Your task to perform on an android device: Search for seafood restaurants on Google Maps Image 0: 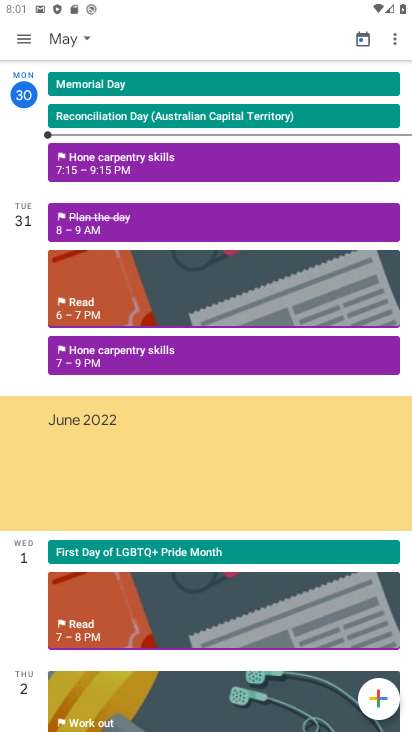
Step 0: press home button
Your task to perform on an android device: Search for seafood restaurants on Google Maps Image 1: 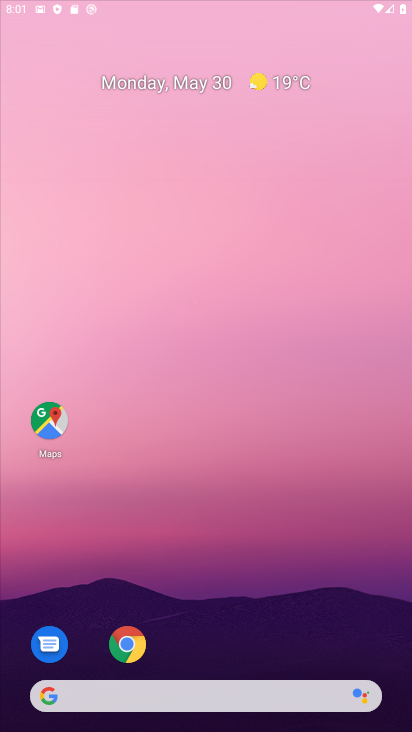
Step 1: drag from (299, 377) to (394, 163)
Your task to perform on an android device: Search for seafood restaurants on Google Maps Image 2: 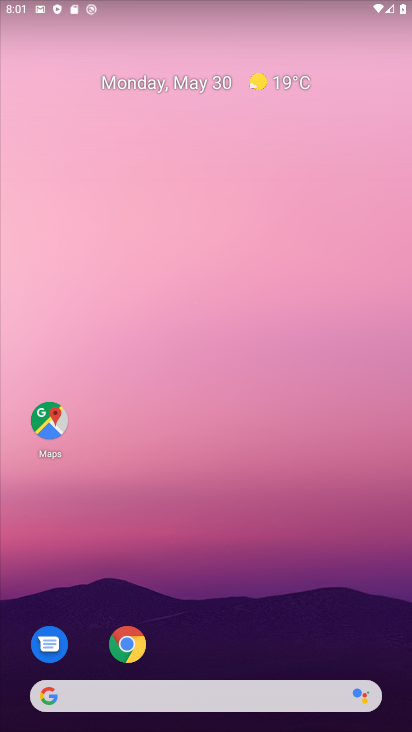
Step 2: drag from (170, 635) to (273, 46)
Your task to perform on an android device: Search for seafood restaurants on Google Maps Image 3: 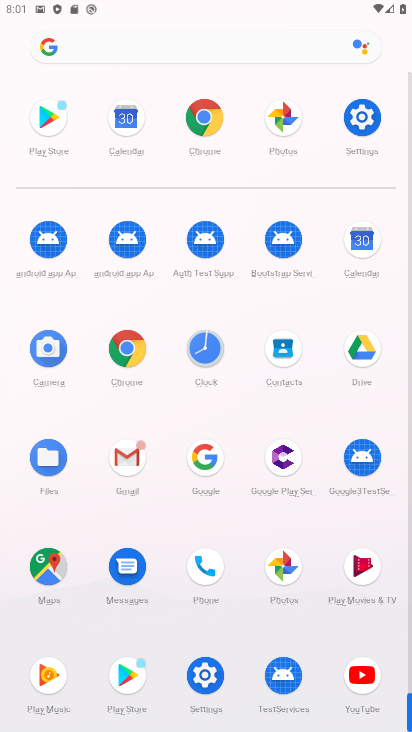
Step 3: click (48, 565)
Your task to perform on an android device: Search for seafood restaurants on Google Maps Image 4: 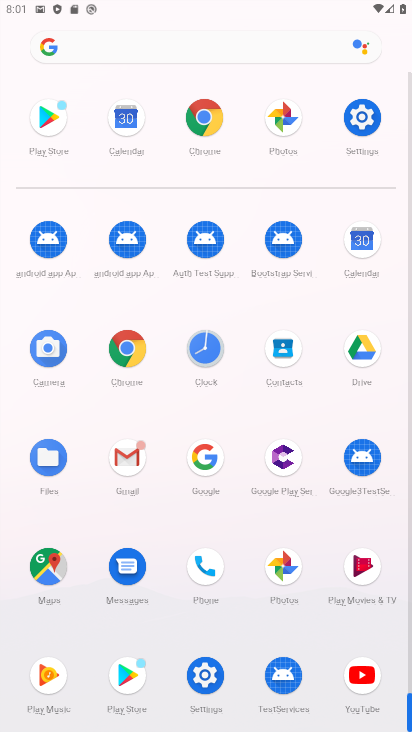
Step 4: click (48, 565)
Your task to perform on an android device: Search for seafood restaurants on Google Maps Image 5: 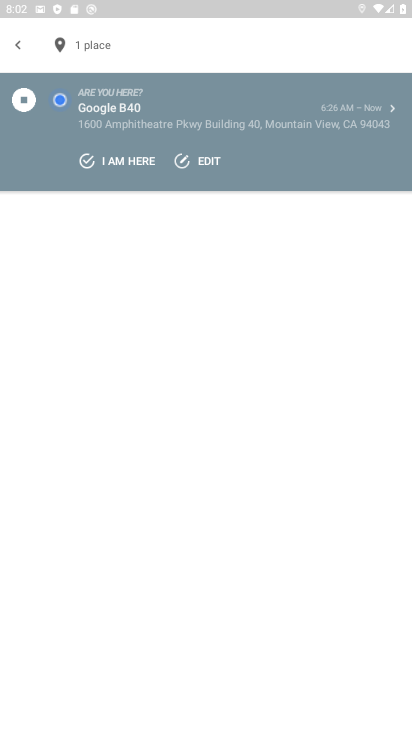
Step 5: click (11, 45)
Your task to perform on an android device: Search for seafood restaurants on Google Maps Image 6: 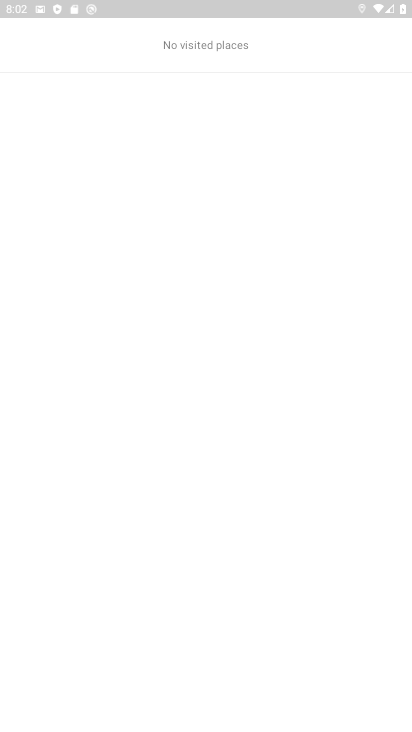
Step 6: click (47, 49)
Your task to perform on an android device: Search for seafood restaurants on Google Maps Image 7: 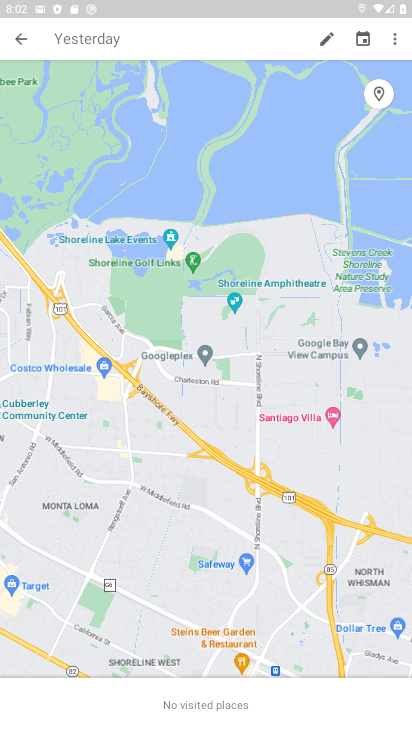
Step 7: press back button
Your task to perform on an android device: Search for seafood restaurants on Google Maps Image 8: 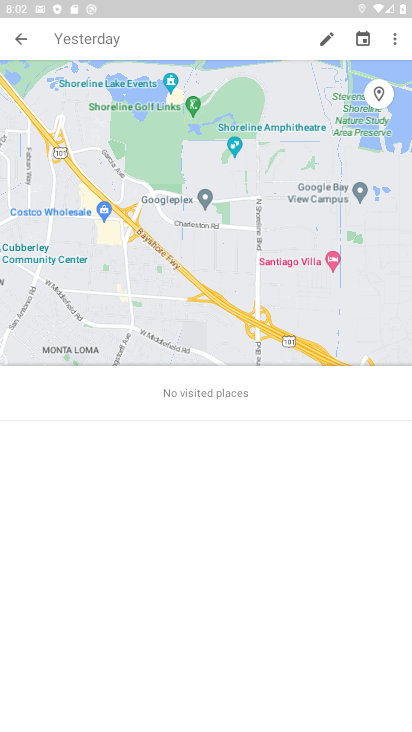
Step 8: click (24, 42)
Your task to perform on an android device: Search for seafood restaurants on Google Maps Image 9: 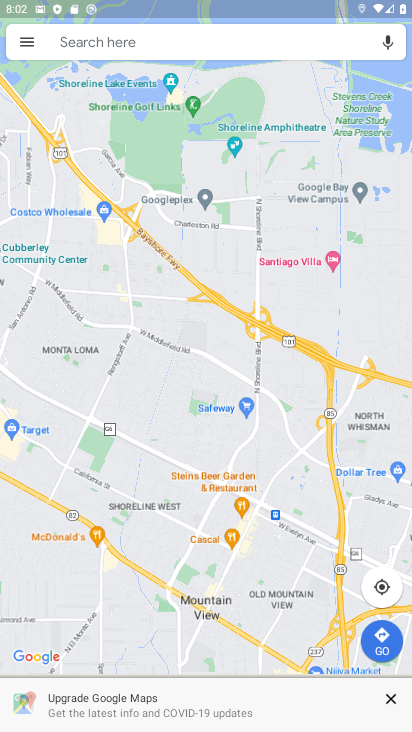
Step 9: click (250, 33)
Your task to perform on an android device: Search for seafood restaurants on Google Maps Image 10: 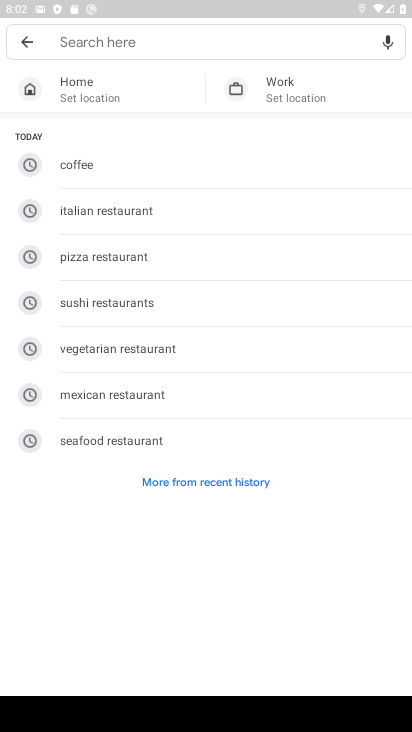
Step 10: click (125, 439)
Your task to perform on an android device: Search for seafood restaurants on Google Maps Image 11: 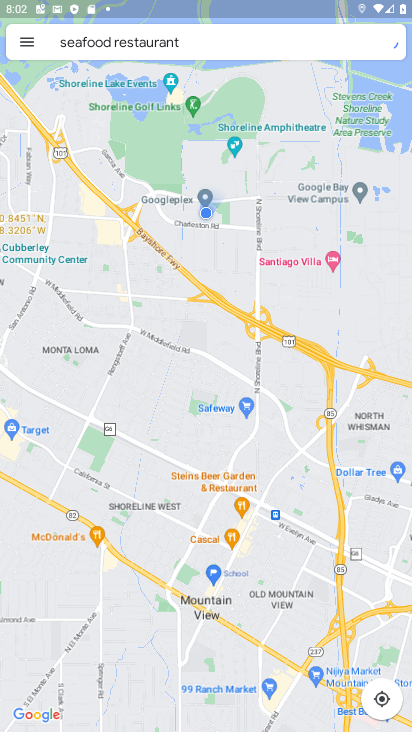
Step 11: task complete